Your task to perform on an android device: change keyboard looks Image 0: 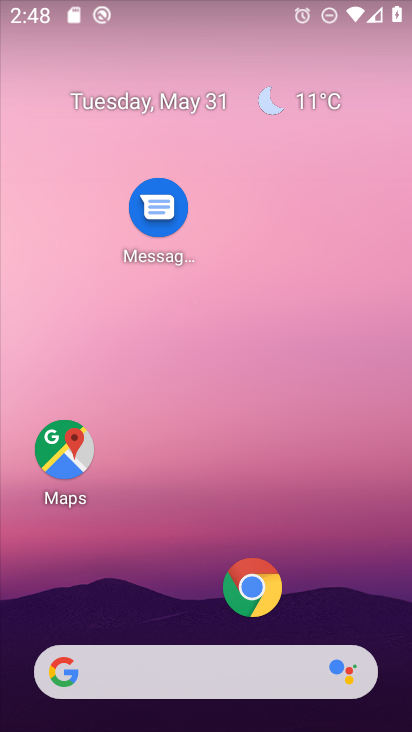
Step 0: click (313, 10)
Your task to perform on an android device: change keyboard looks Image 1: 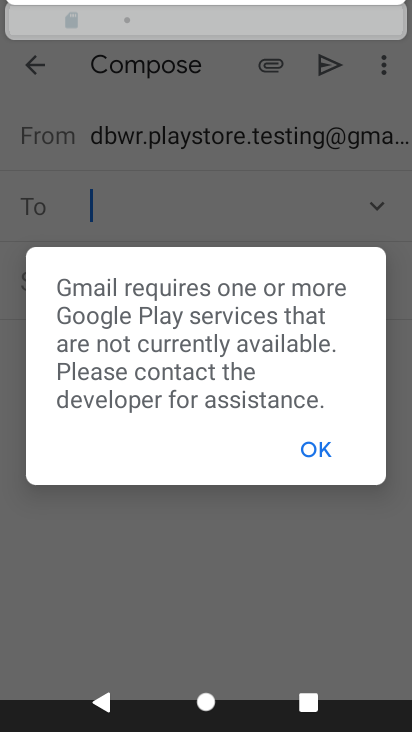
Step 1: drag from (229, 524) to (344, 118)
Your task to perform on an android device: change keyboard looks Image 2: 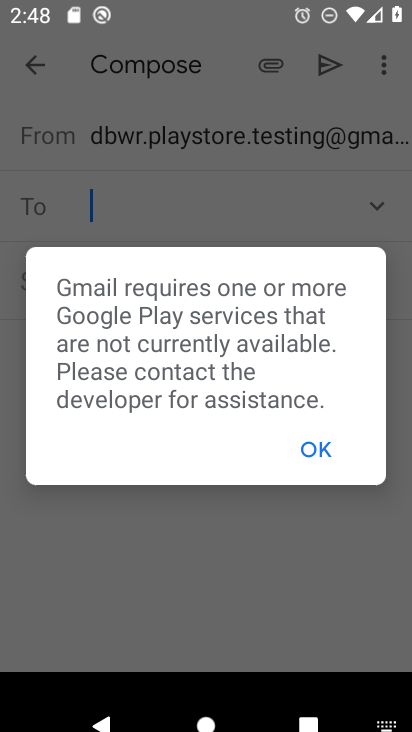
Step 2: press home button
Your task to perform on an android device: change keyboard looks Image 3: 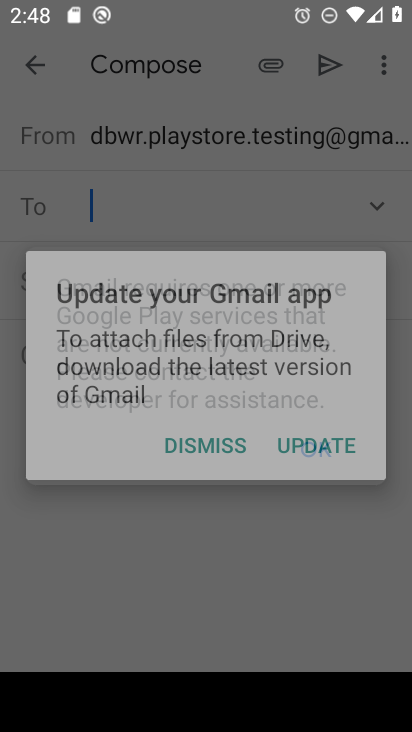
Step 3: press home button
Your task to perform on an android device: change keyboard looks Image 4: 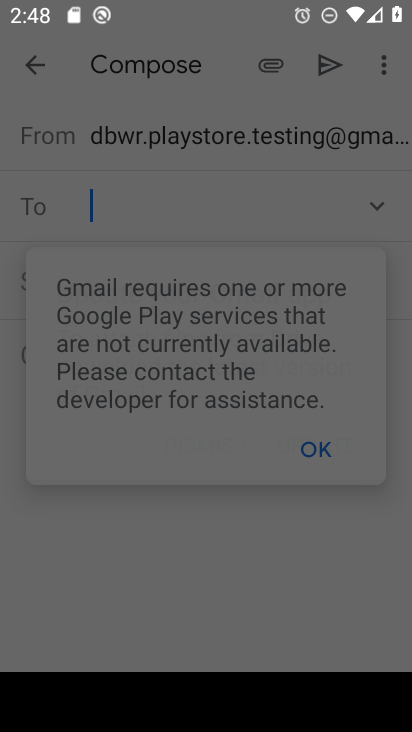
Step 4: drag from (371, 2) to (333, 4)
Your task to perform on an android device: change keyboard looks Image 5: 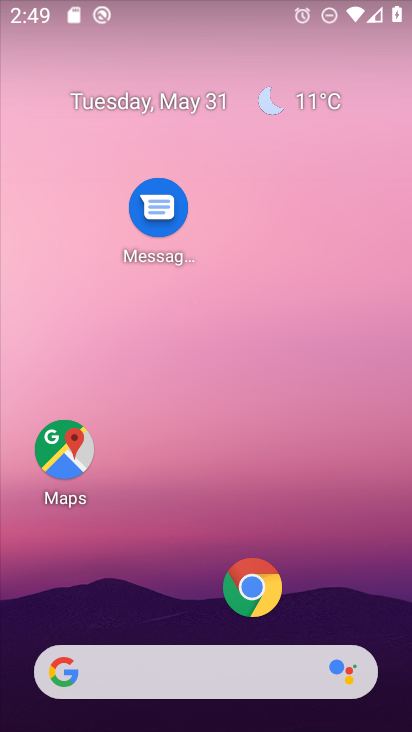
Step 5: drag from (190, 491) to (277, 2)
Your task to perform on an android device: change keyboard looks Image 6: 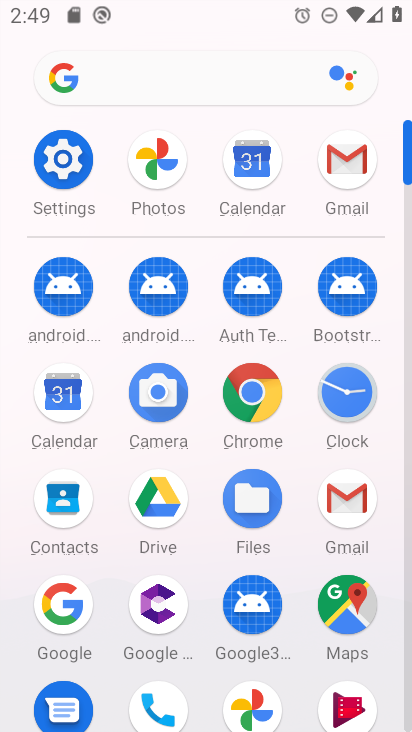
Step 6: click (64, 172)
Your task to perform on an android device: change keyboard looks Image 7: 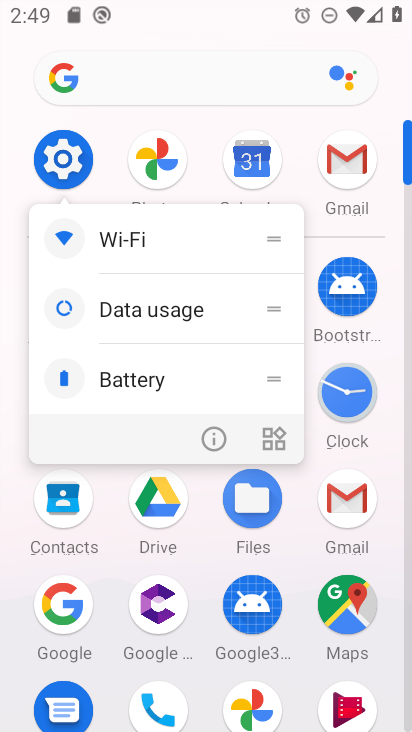
Step 7: click (214, 428)
Your task to perform on an android device: change keyboard looks Image 8: 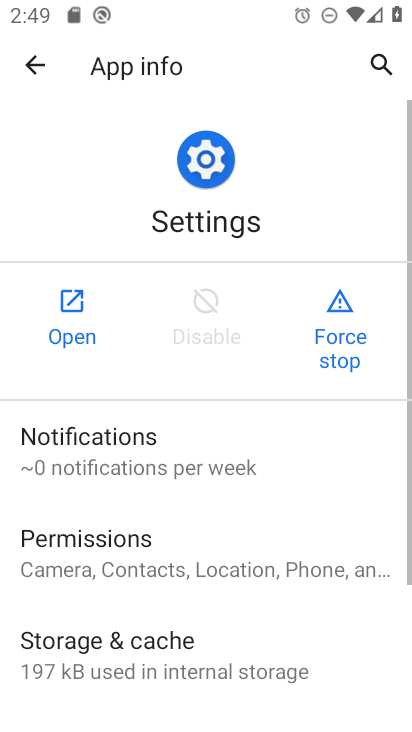
Step 8: drag from (199, 539) to (283, 5)
Your task to perform on an android device: change keyboard looks Image 9: 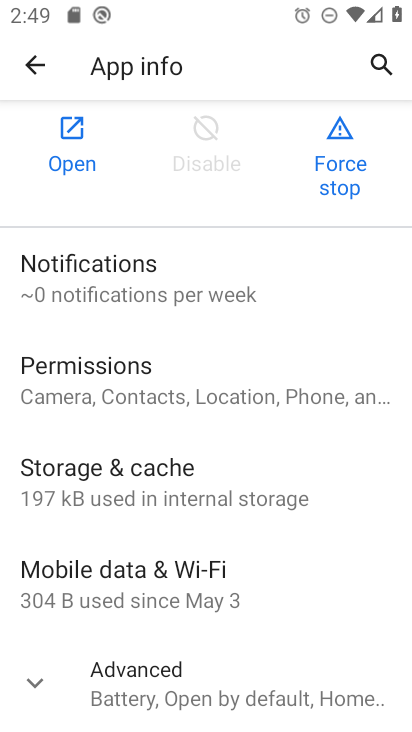
Step 9: click (65, 122)
Your task to perform on an android device: change keyboard looks Image 10: 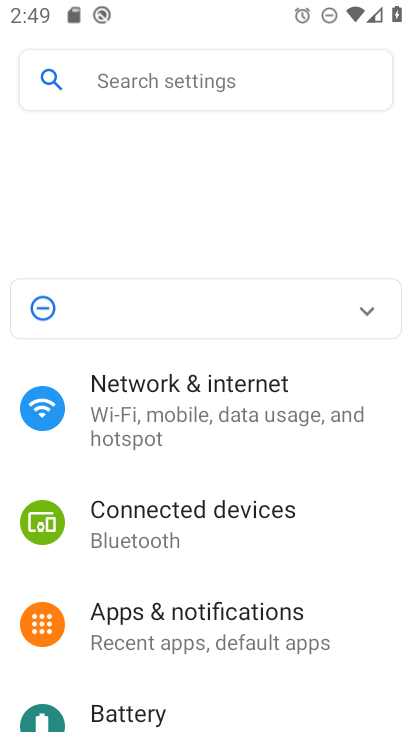
Step 10: drag from (235, 487) to (300, 2)
Your task to perform on an android device: change keyboard looks Image 11: 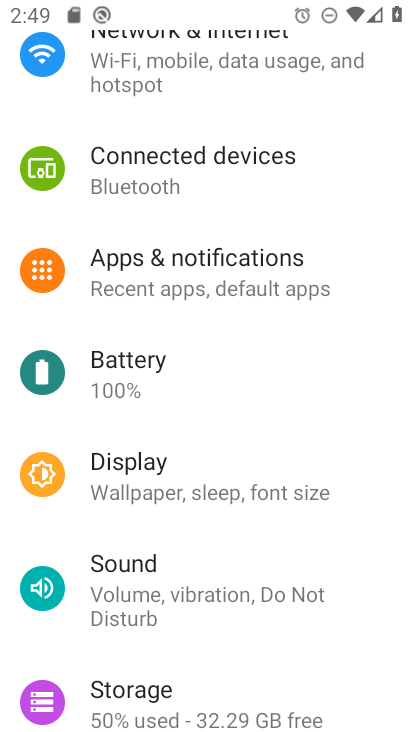
Step 11: drag from (143, 634) to (302, 15)
Your task to perform on an android device: change keyboard looks Image 12: 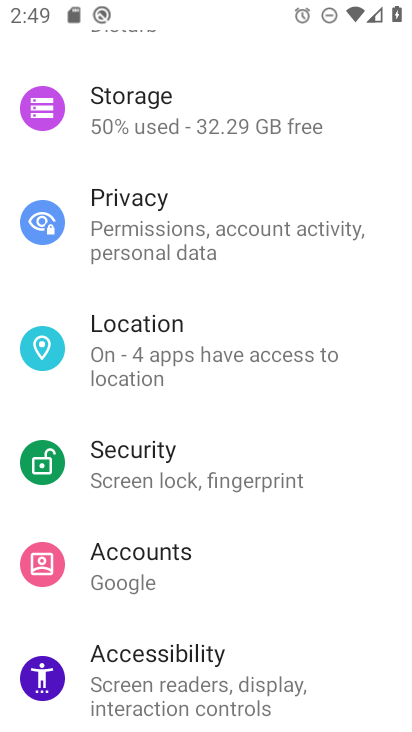
Step 12: drag from (162, 550) to (270, 7)
Your task to perform on an android device: change keyboard looks Image 13: 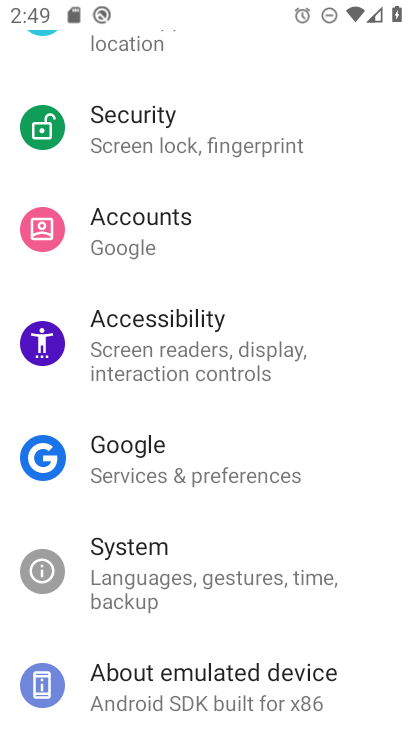
Step 13: click (191, 570)
Your task to perform on an android device: change keyboard looks Image 14: 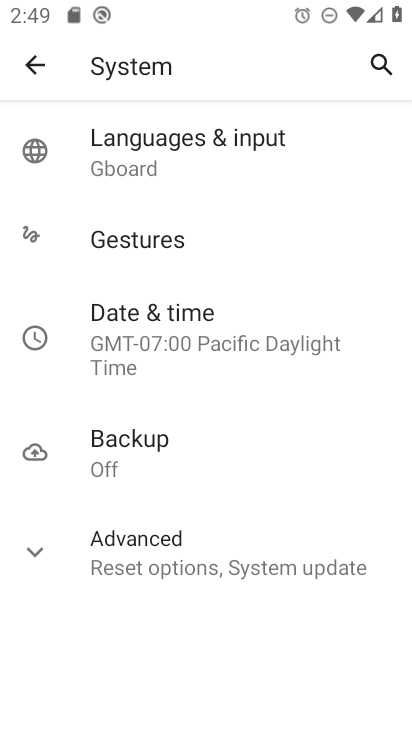
Step 14: drag from (174, 93) to (212, 113)
Your task to perform on an android device: change keyboard looks Image 15: 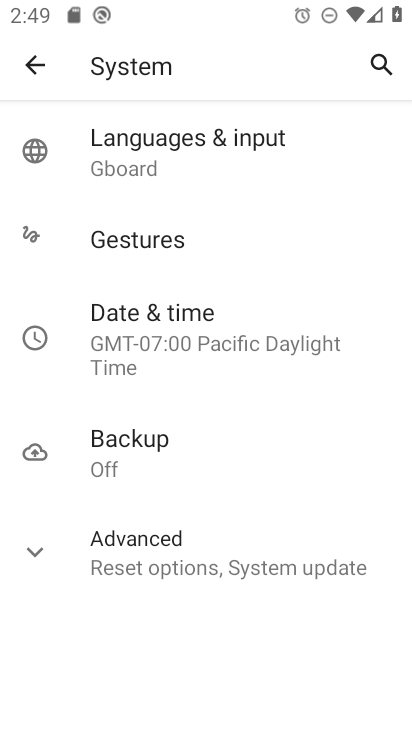
Step 15: click (215, 129)
Your task to perform on an android device: change keyboard looks Image 16: 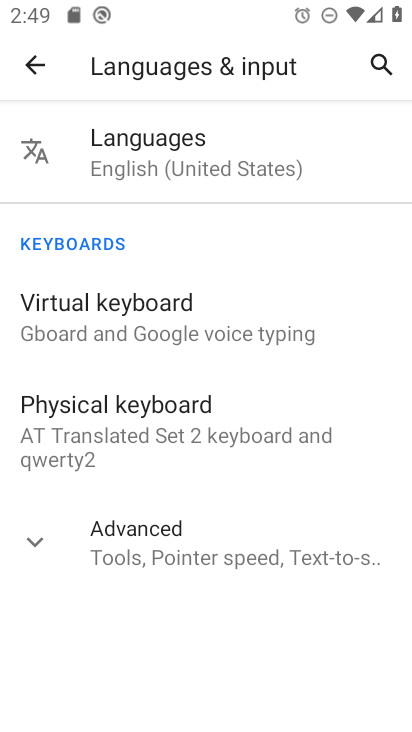
Step 16: click (149, 326)
Your task to perform on an android device: change keyboard looks Image 17: 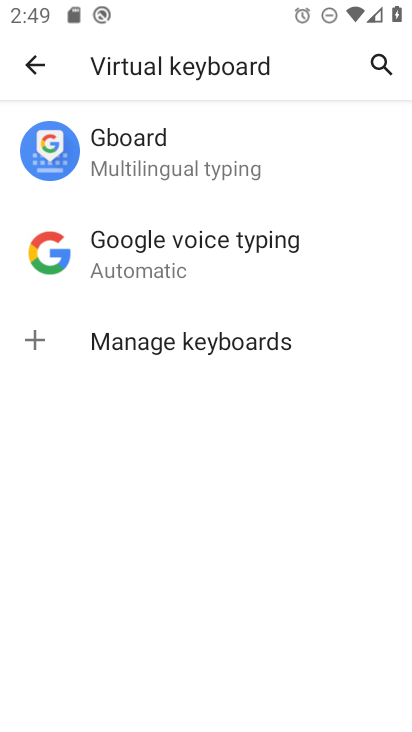
Step 17: click (215, 155)
Your task to perform on an android device: change keyboard looks Image 18: 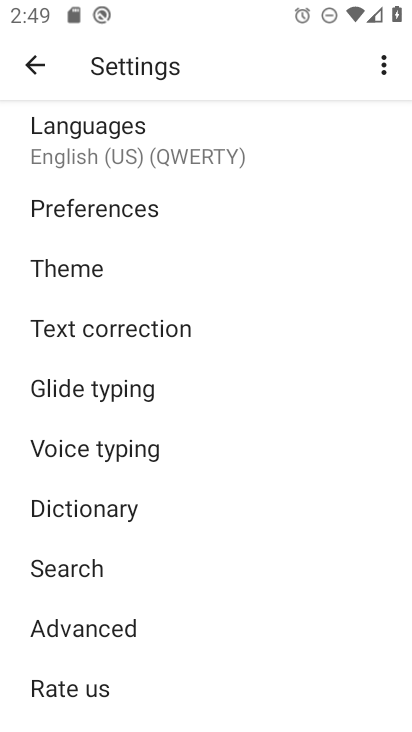
Step 18: click (104, 272)
Your task to perform on an android device: change keyboard looks Image 19: 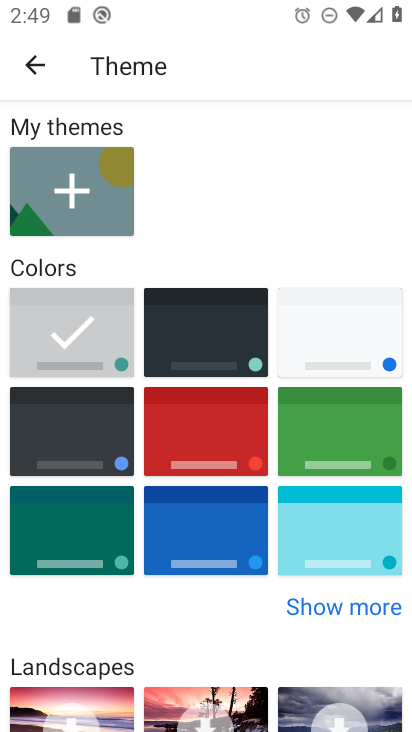
Step 19: click (227, 334)
Your task to perform on an android device: change keyboard looks Image 20: 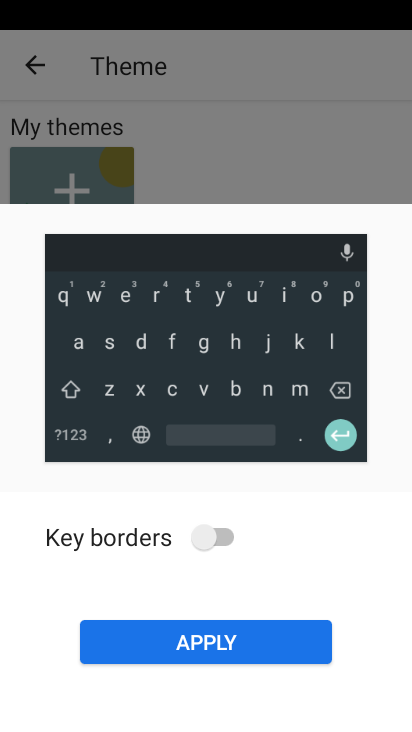
Step 20: click (238, 651)
Your task to perform on an android device: change keyboard looks Image 21: 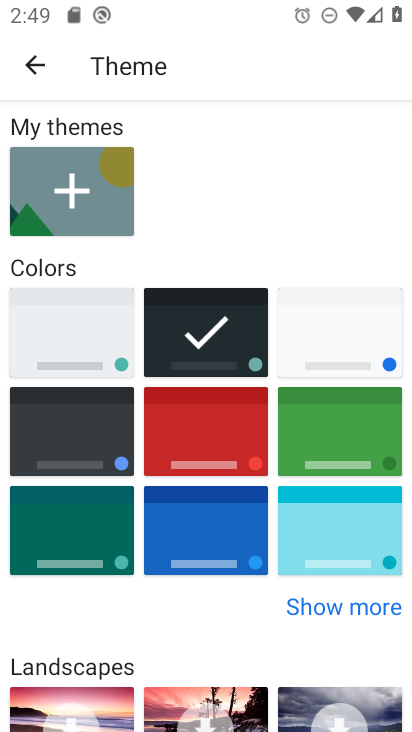
Step 21: task complete